Your task to perform on an android device: Open calendar and show me the third week of next month Image 0: 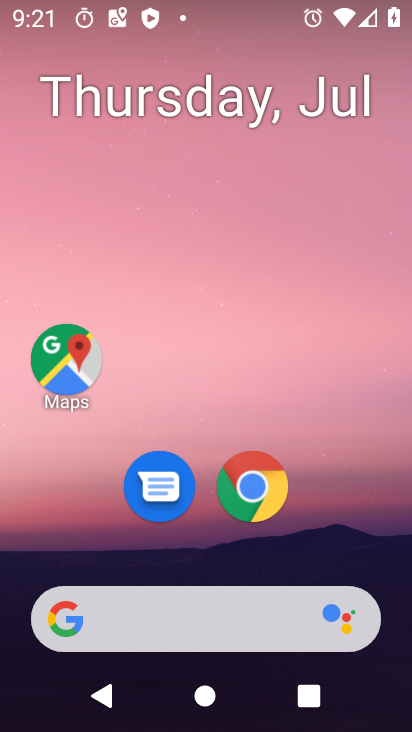
Step 0: drag from (191, 611) to (200, 217)
Your task to perform on an android device: Open calendar and show me the third week of next month Image 1: 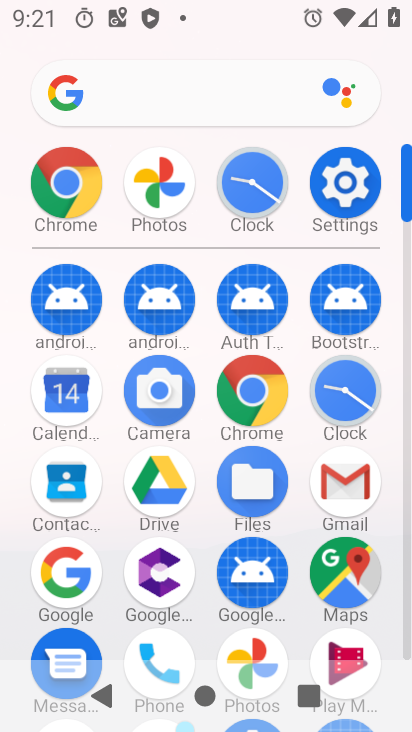
Step 1: click (70, 411)
Your task to perform on an android device: Open calendar and show me the third week of next month Image 2: 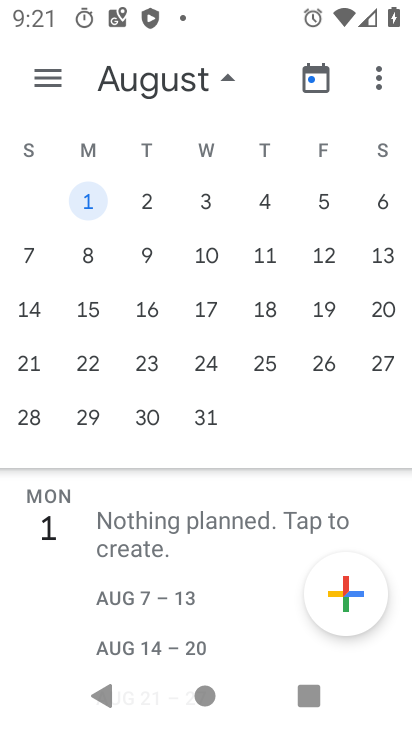
Step 2: click (93, 312)
Your task to perform on an android device: Open calendar and show me the third week of next month Image 3: 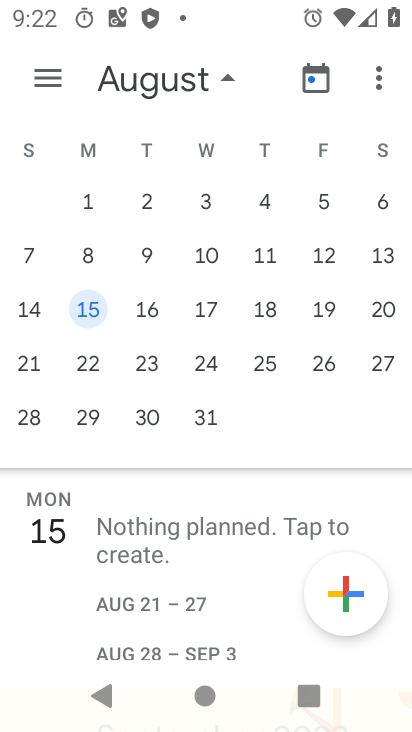
Step 3: task complete